Your task to perform on an android device: check data usage Image 0: 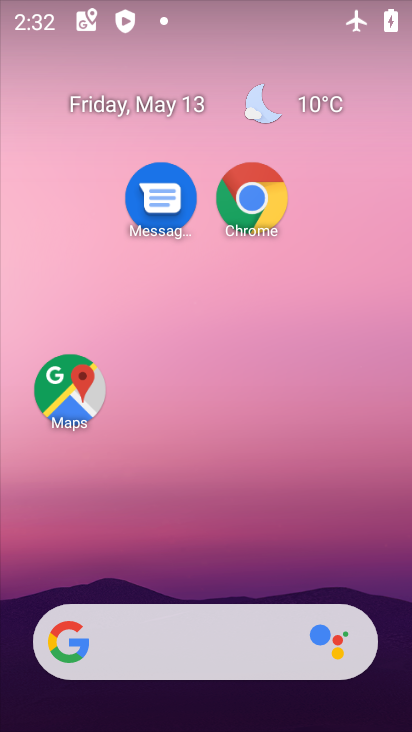
Step 0: drag from (164, 605) to (312, 17)
Your task to perform on an android device: check data usage Image 1: 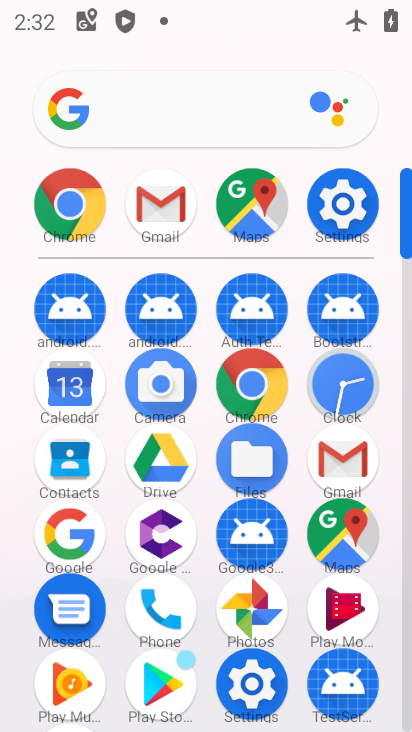
Step 1: click (350, 197)
Your task to perform on an android device: check data usage Image 2: 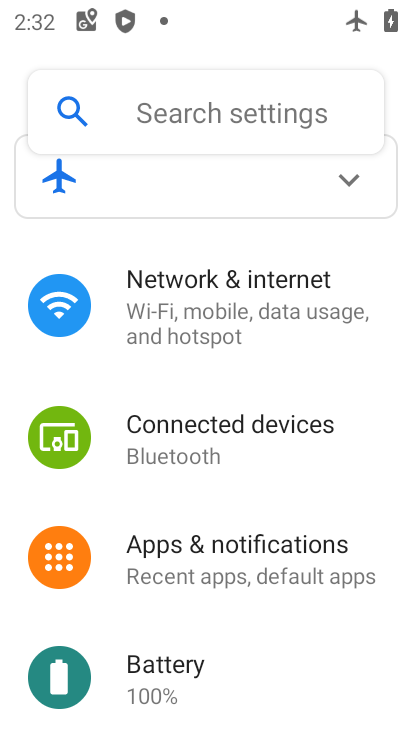
Step 2: click (237, 311)
Your task to perform on an android device: check data usage Image 3: 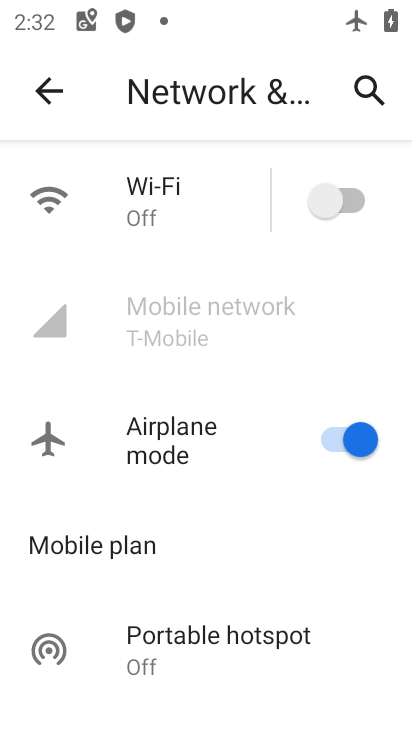
Step 3: task complete